Your task to perform on an android device: clear history in the chrome app Image 0: 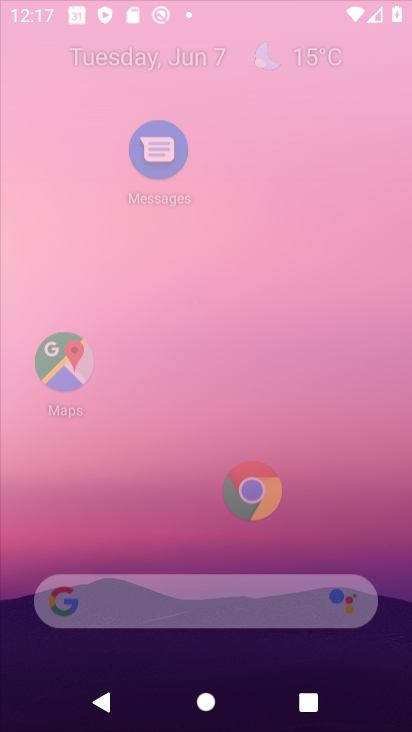
Step 0: drag from (236, 601) to (226, 276)
Your task to perform on an android device: clear history in the chrome app Image 1: 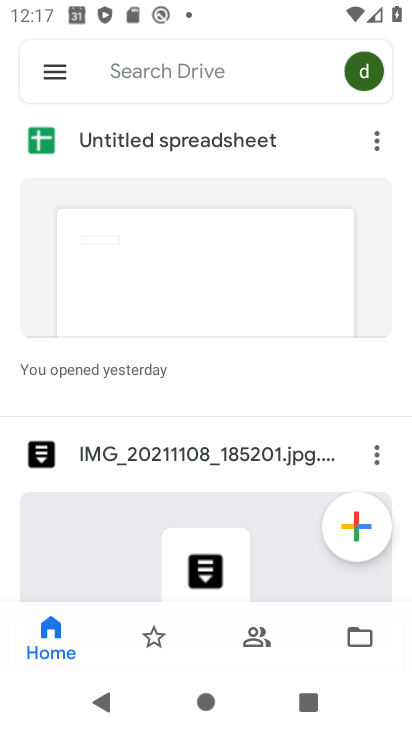
Step 1: press home button
Your task to perform on an android device: clear history in the chrome app Image 2: 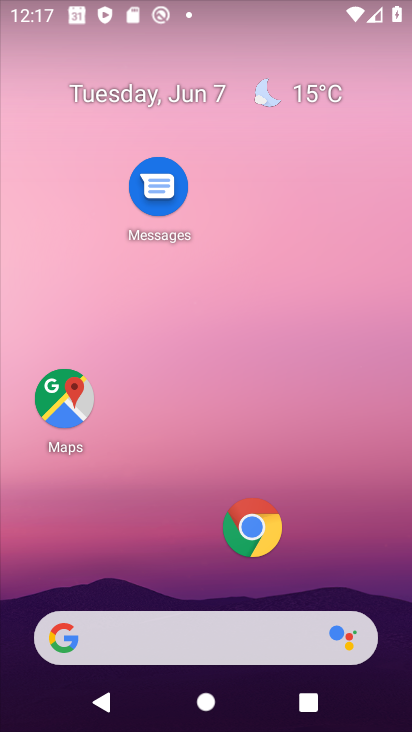
Step 2: click (264, 538)
Your task to perform on an android device: clear history in the chrome app Image 3: 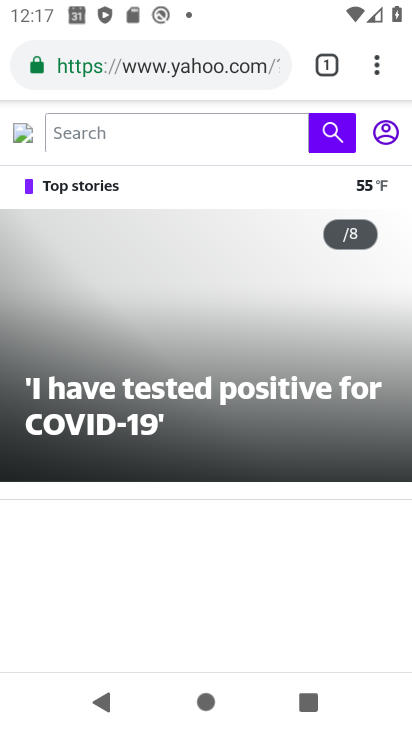
Step 3: click (375, 62)
Your task to perform on an android device: clear history in the chrome app Image 4: 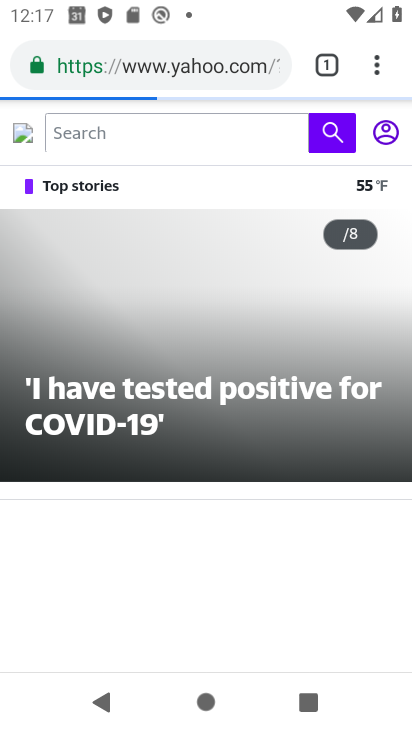
Step 4: click (376, 64)
Your task to perform on an android device: clear history in the chrome app Image 5: 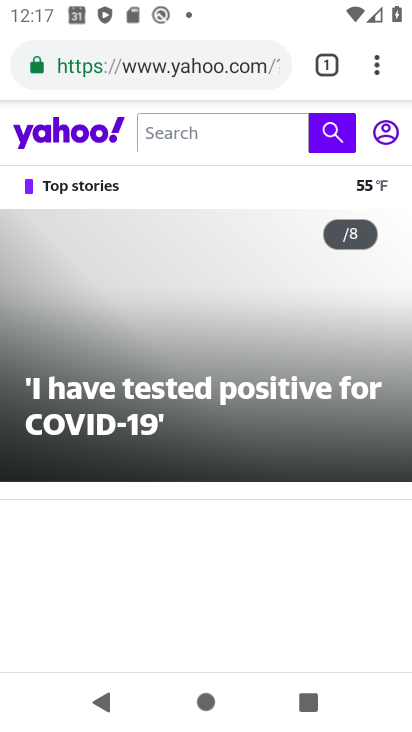
Step 5: click (376, 64)
Your task to perform on an android device: clear history in the chrome app Image 6: 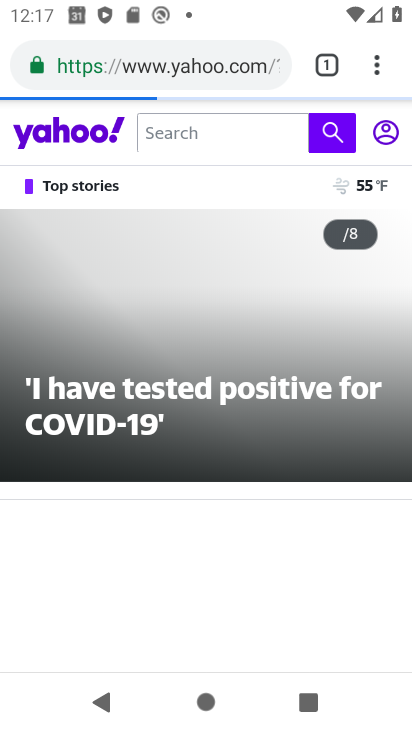
Step 6: click (384, 64)
Your task to perform on an android device: clear history in the chrome app Image 7: 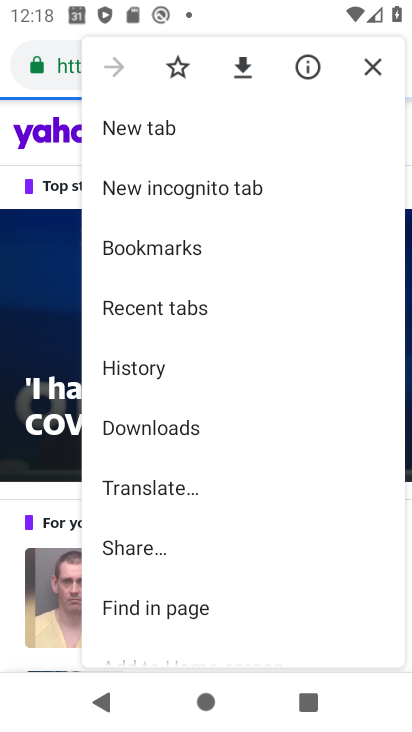
Step 7: click (146, 362)
Your task to perform on an android device: clear history in the chrome app Image 8: 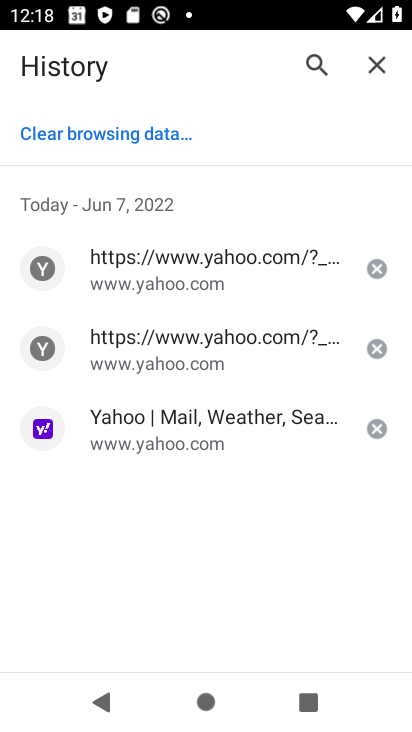
Step 8: click (80, 124)
Your task to perform on an android device: clear history in the chrome app Image 9: 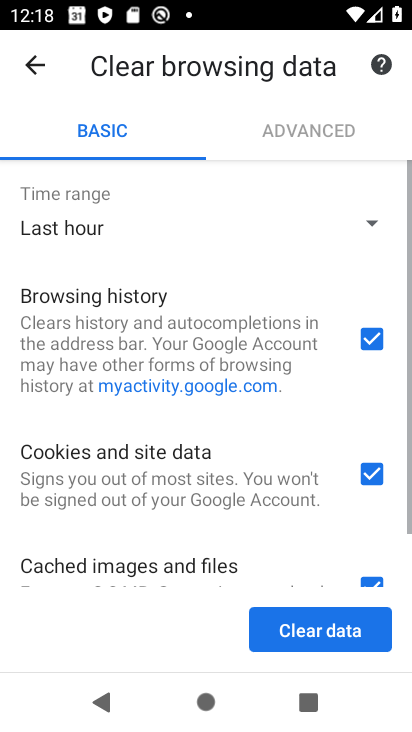
Step 9: click (311, 620)
Your task to perform on an android device: clear history in the chrome app Image 10: 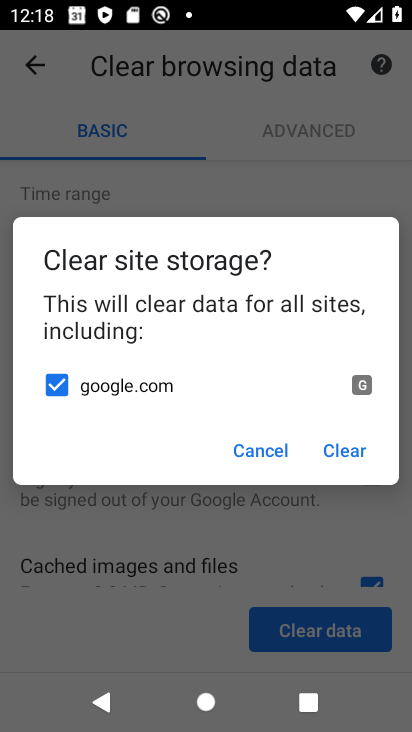
Step 10: click (348, 436)
Your task to perform on an android device: clear history in the chrome app Image 11: 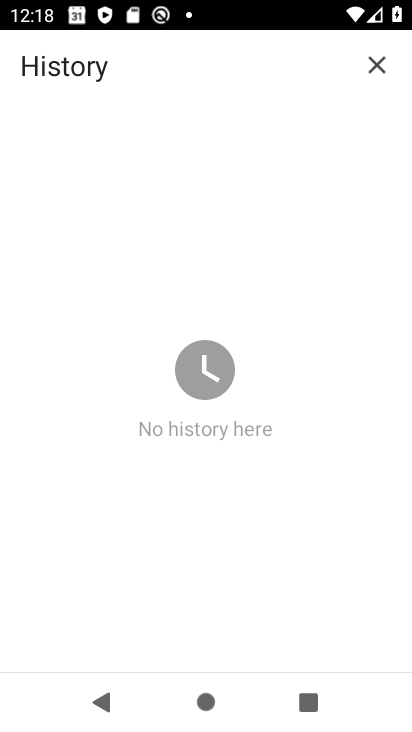
Step 11: task complete